Your task to perform on an android device: add a contact in the contacts app Image 0: 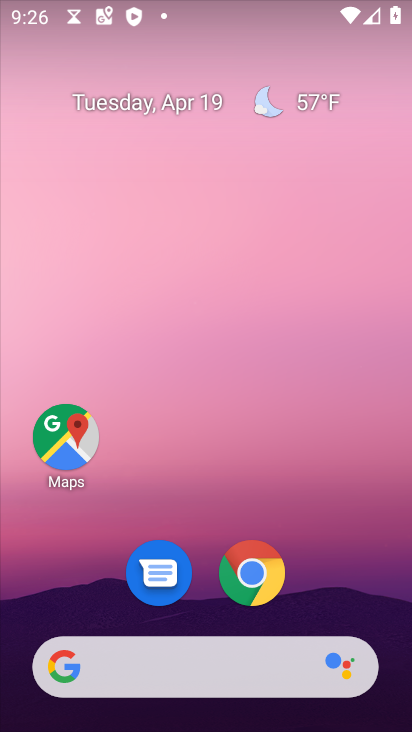
Step 0: drag from (305, 575) to (251, 18)
Your task to perform on an android device: add a contact in the contacts app Image 1: 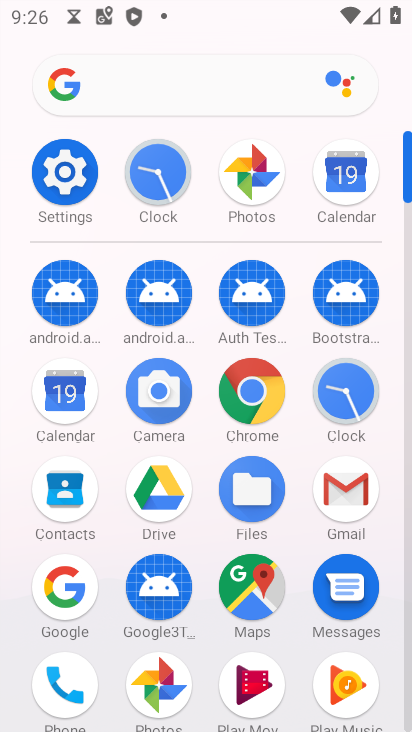
Step 1: click (65, 506)
Your task to perform on an android device: add a contact in the contacts app Image 2: 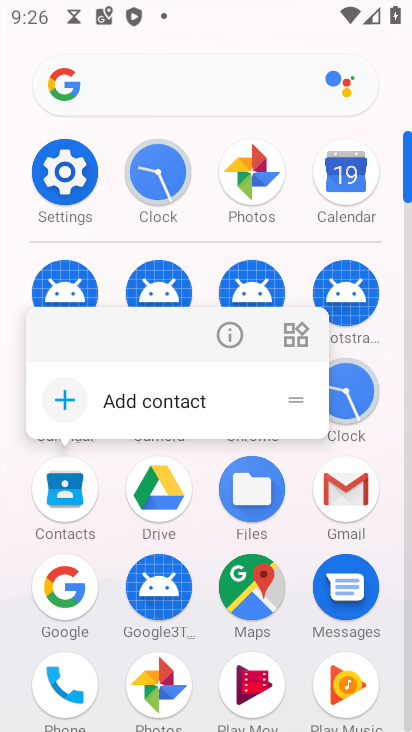
Step 2: click (65, 495)
Your task to perform on an android device: add a contact in the contacts app Image 3: 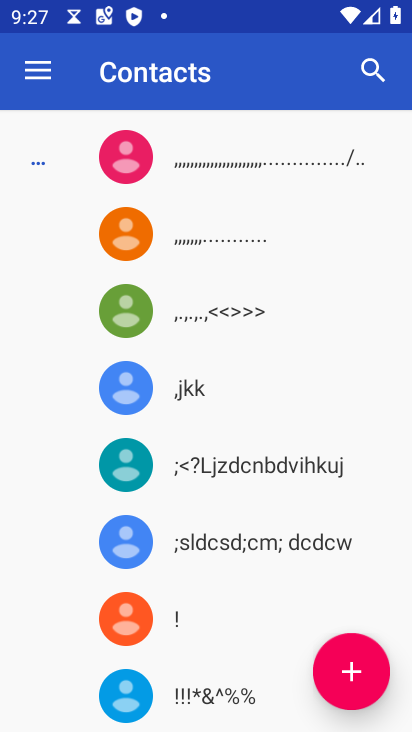
Step 3: click (339, 658)
Your task to perform on an android device: add a contact in the contacts app Image 4: 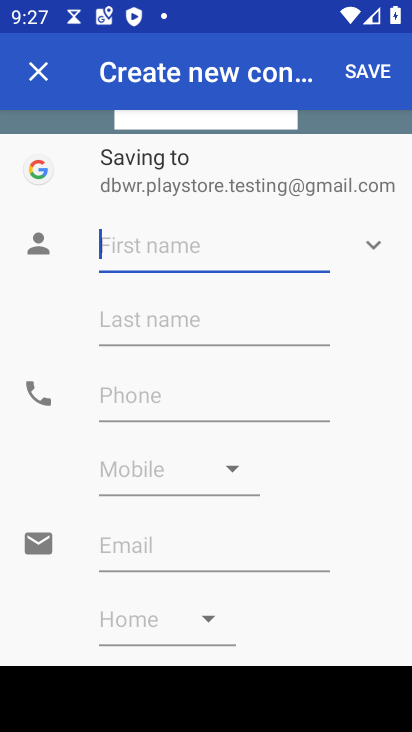
Step 4: click (241, 253)
Your task to perform on an android device: add a contact in the contacts app Image 5: 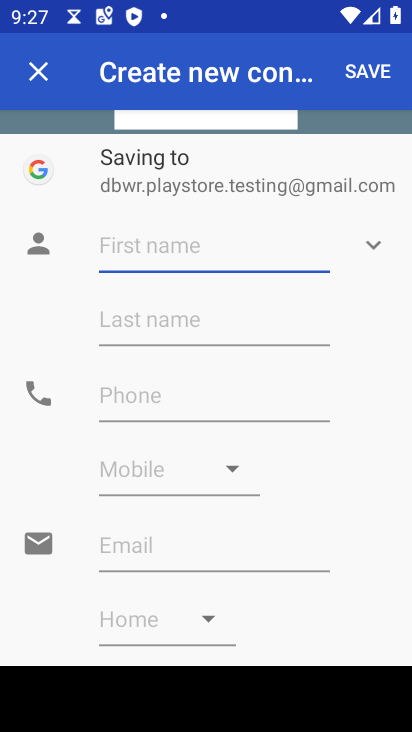
Step 5: type "iyghjnb"
Your task to perform on an android device: add a contact in the contacts app Image 6: 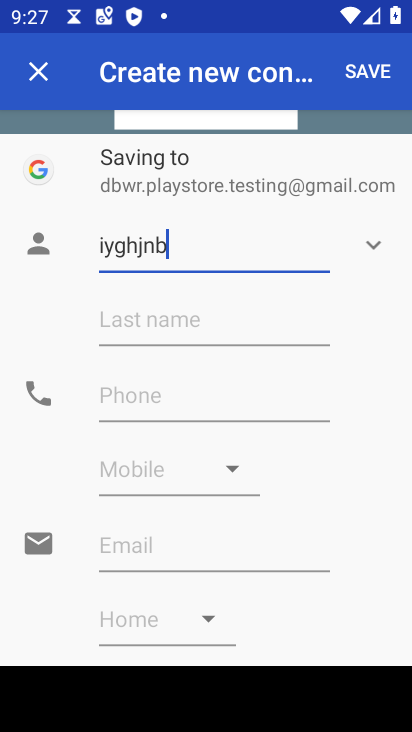
Step 6: click (216, 404)
Your task to perform on an android device: add a contact in the contacts app Image 7: 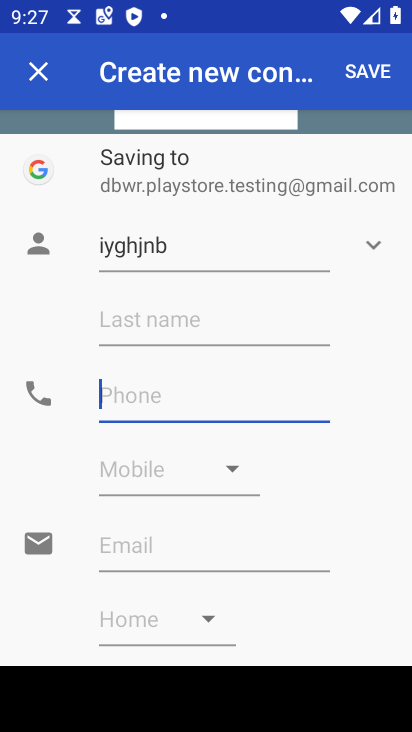
Step 7: type "68756789876545"
Your task to perform on an android device: add a contact in the contacts app Image 8: 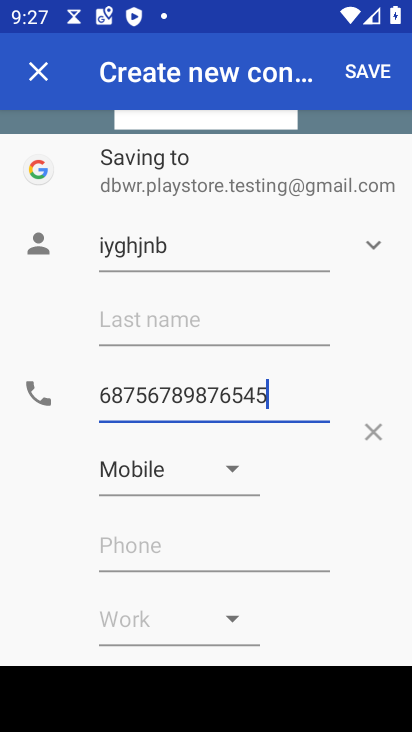
Step 8: click (378, 72)
Your task to perform on an android device: add a contact in the contacts app Image 9: 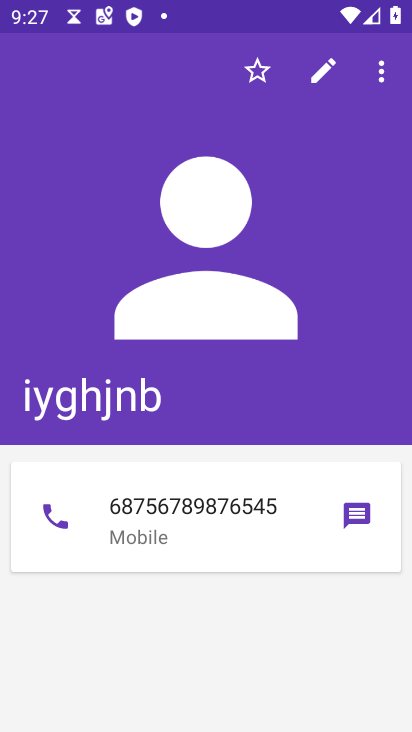
Step 9: task complete